Your task to perform on an android device: Go to network settings Image 0: 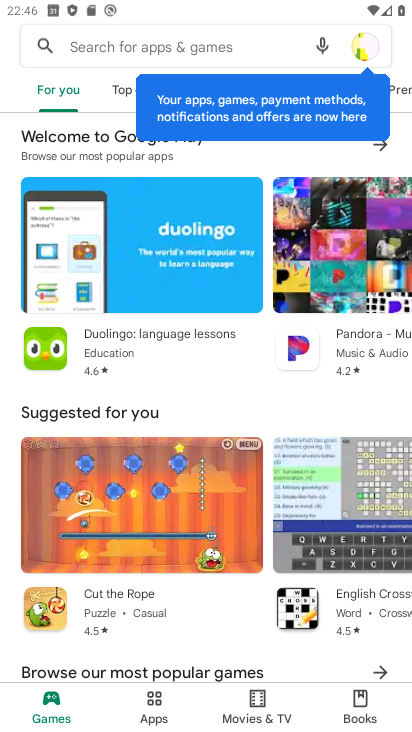
Step 0: press home button
Your task to perform on an android device: Go to network settings Image 1: 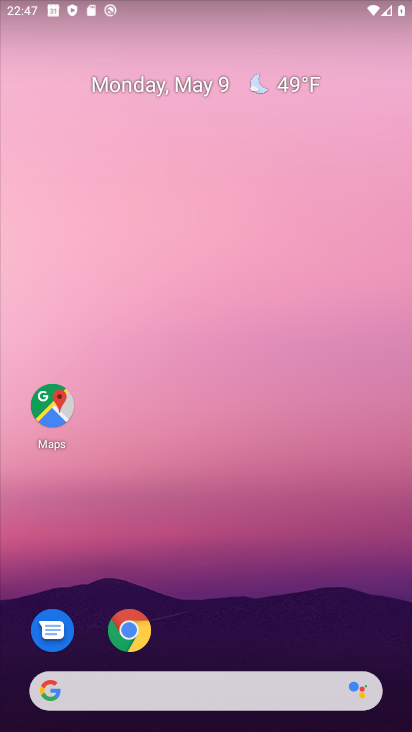
Step 1: drag from (183, 639) to (186, 145)
Your task to perform on an android device: Go to network settings Image 2: 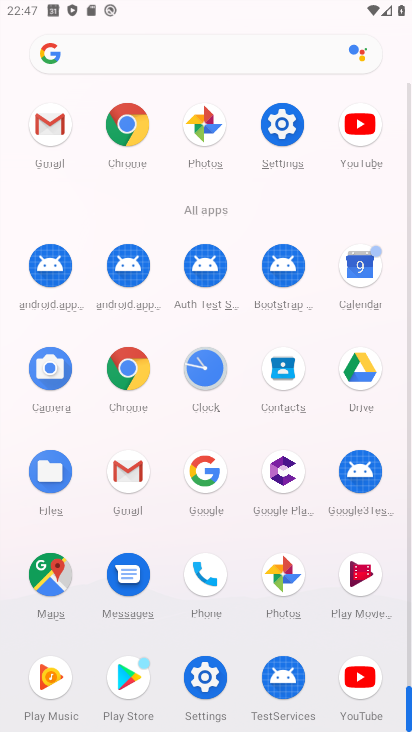
Step 2: click (285, 136)
Your task to perform on an android device: Go to network settings Image 3: 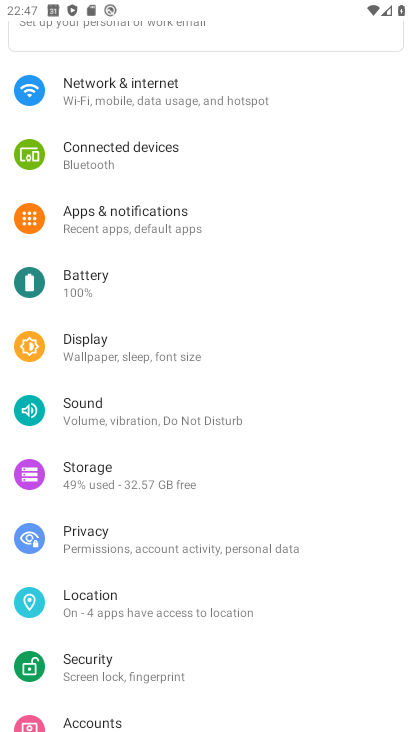
Step 3: click (123, 112)
Your task to perform on an android device: Go to network settings Image 4: 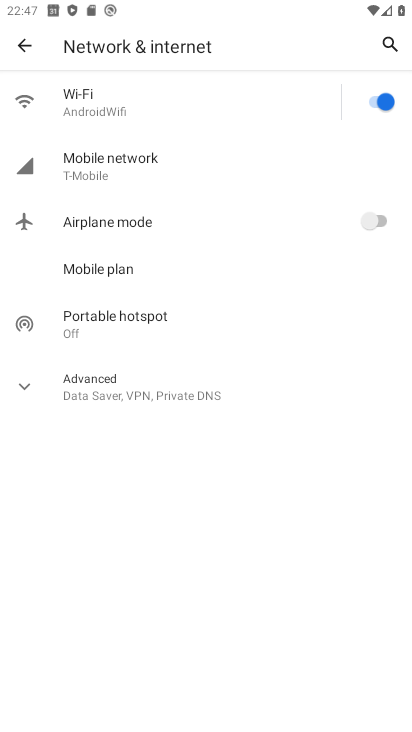
Step 4: click (143, 165)
Your task to perform on an android device: Go to network settings Image 5: 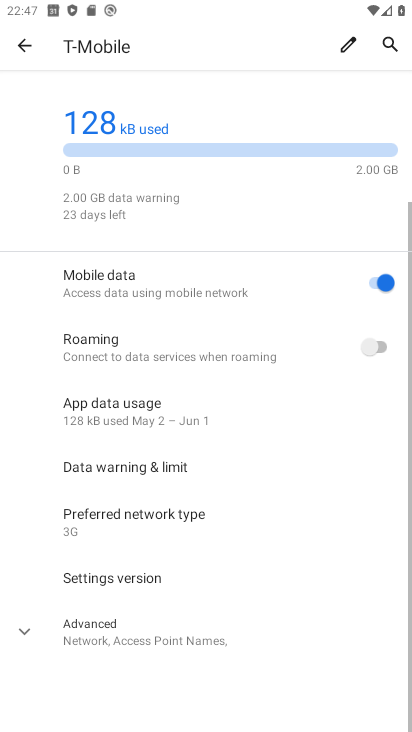
Step 5: task complete